Your task to perform on an android device: Open CNN.com Image 0: 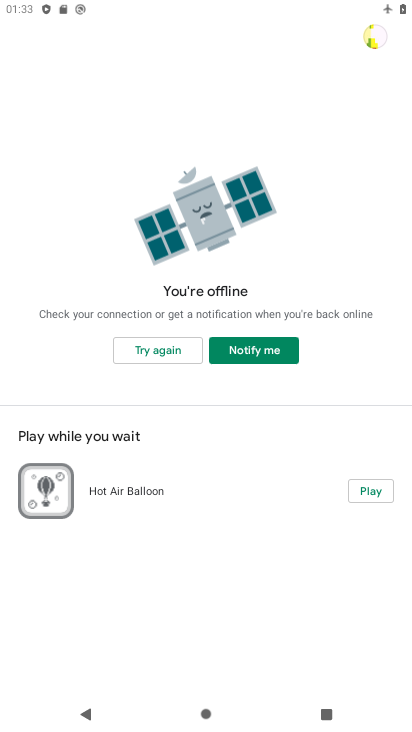
Step 0: press home button
Your task to perform on an android device: Open CNN.com Image 1: 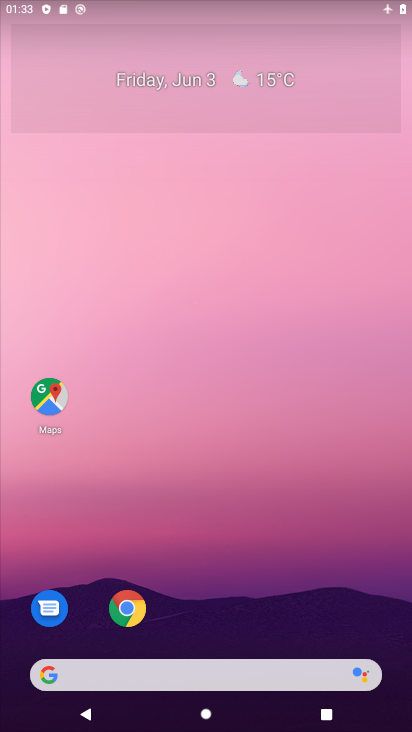
Step 1: click (130, 606)
Your task to perform on an android device: Open CNN.com Image 2: 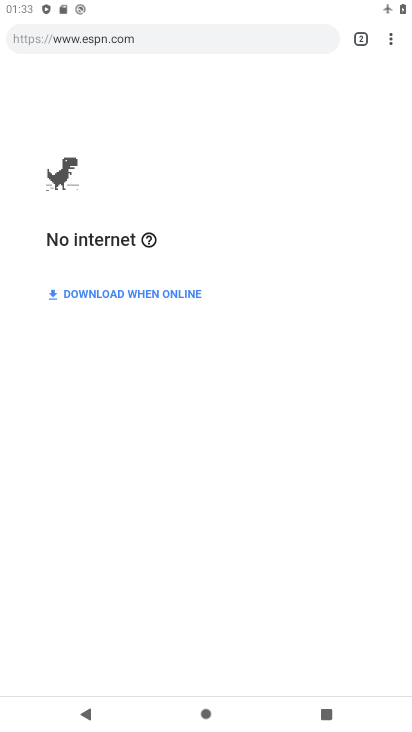
Step 2: click (239, 45)
Your task to perform on an android device: Open CNN.com Image 3: 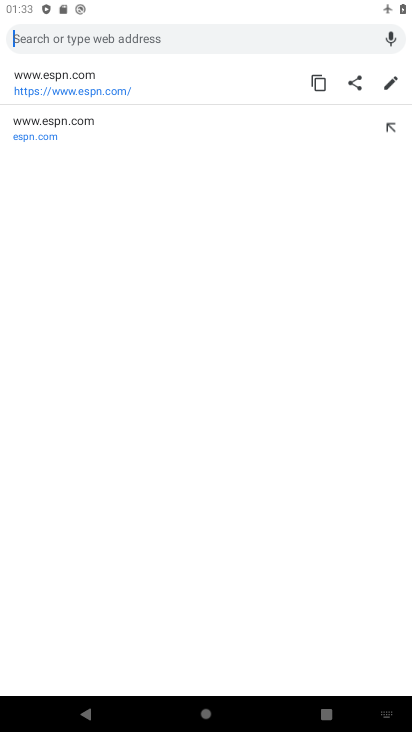
Step 3: type "cnn.com"
Your task to perform on an android device: Open CNN.com Image 4: 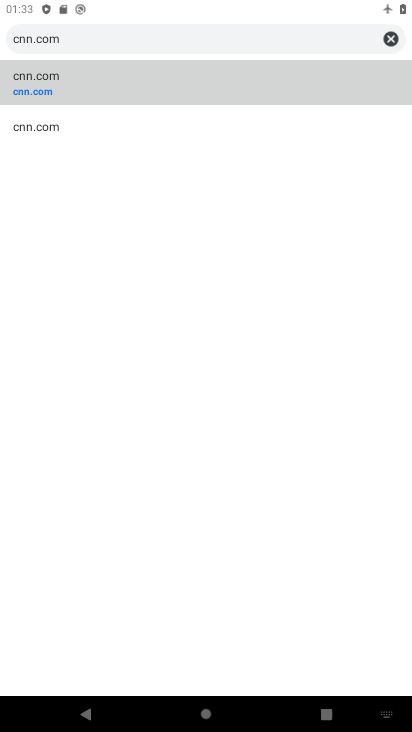
Step 4: click (48, 94)
Your task to perform on an android device: Open CNN.com Image 5: 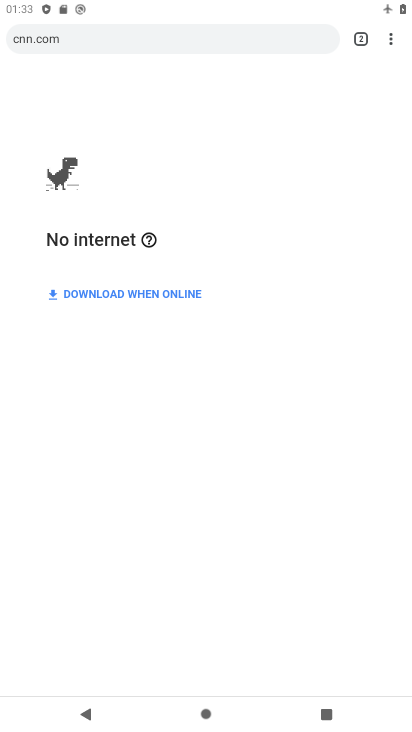
Step 5: task complete